Your task to perform on an android device: change keyboard looks Image 0: 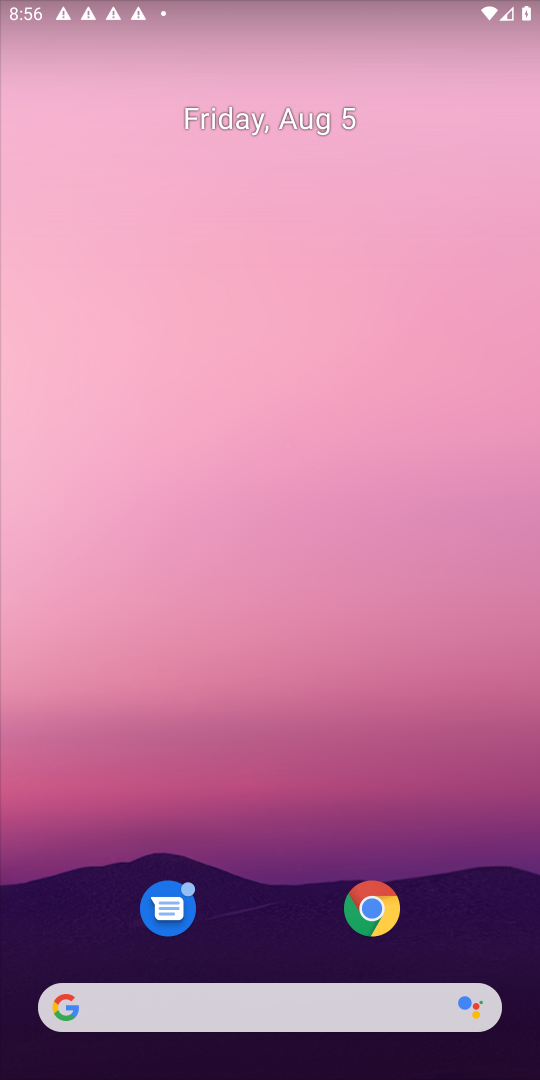
Step 0: drag from (250, 440) to (199, 200)
Your task to perform on an android device: change keyboard looks Image 1: 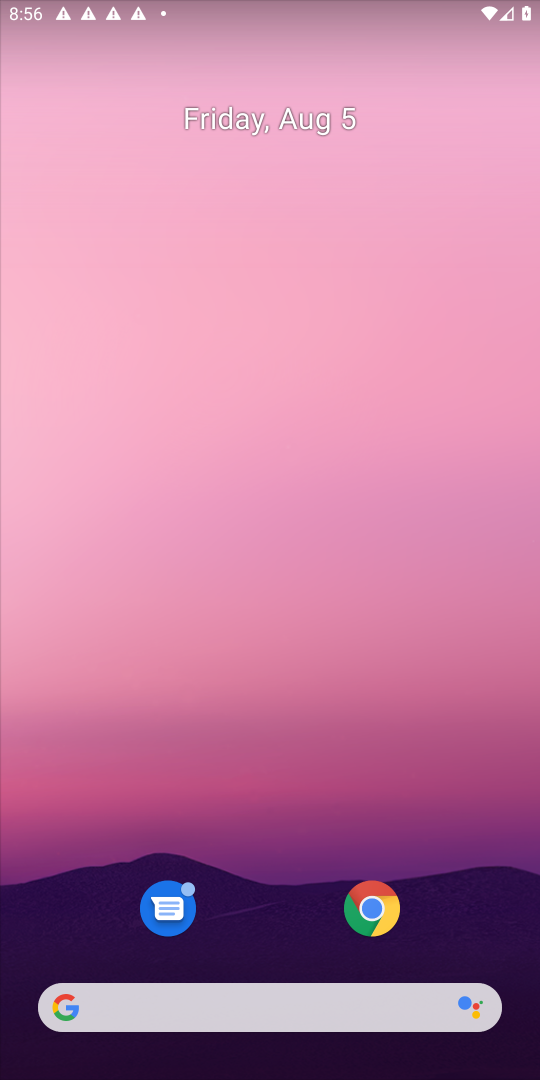
Step 1: drag from (264, 928) to (215, 124)
Your task to perform on an android device: change keyboard looks Image 2: 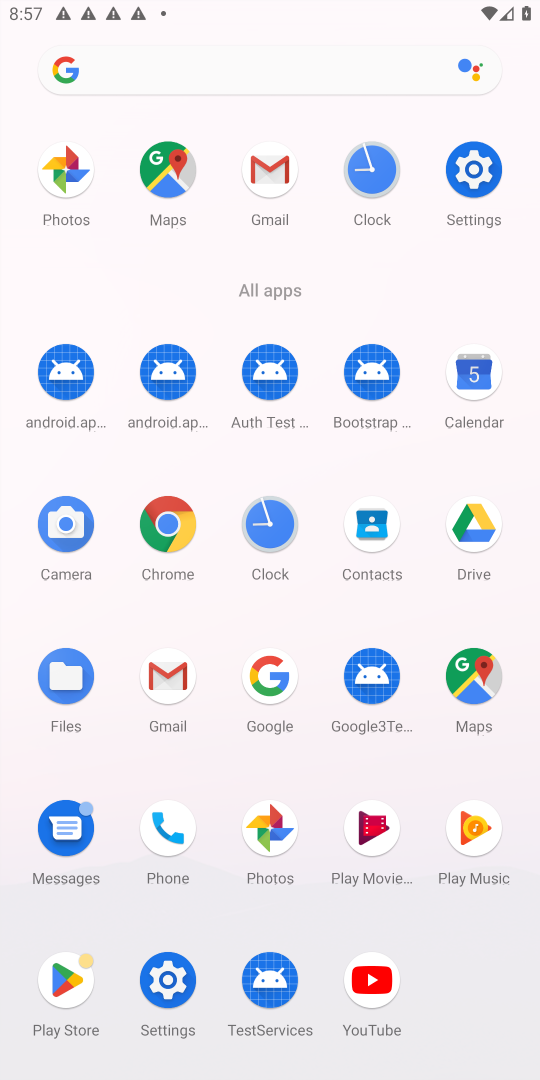
Step 2: click (492, 151)
Your task to perform on an android device: change keyboard looks Image 3: 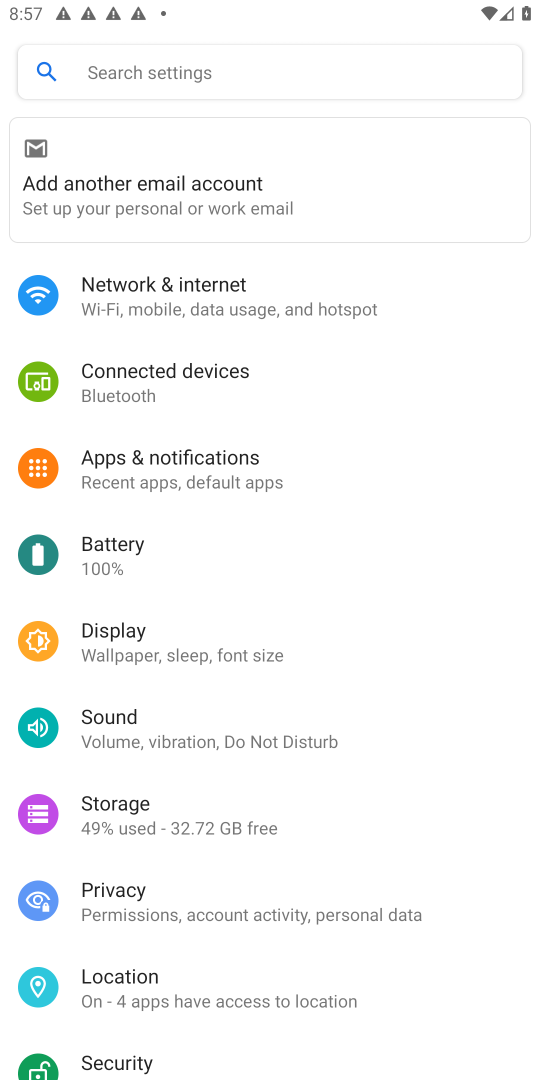
Step 3: drag from (329, 1053) to (180, 253)
Your task to perform on an android device: change keyboard looks Image 4: 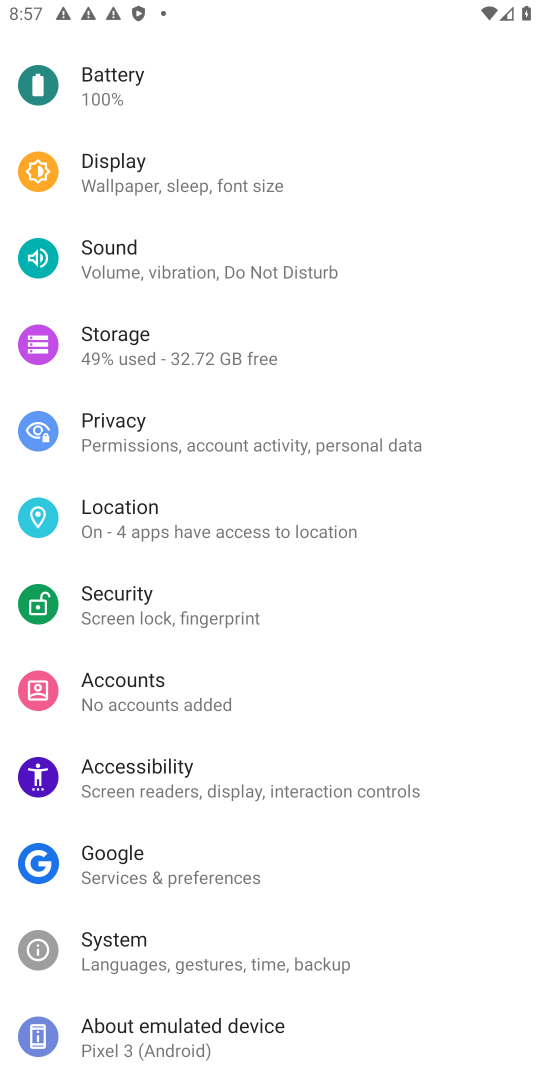
Step 4: click (239, 953)
Your task to perform on an android device: change keyboard looks Image 5: 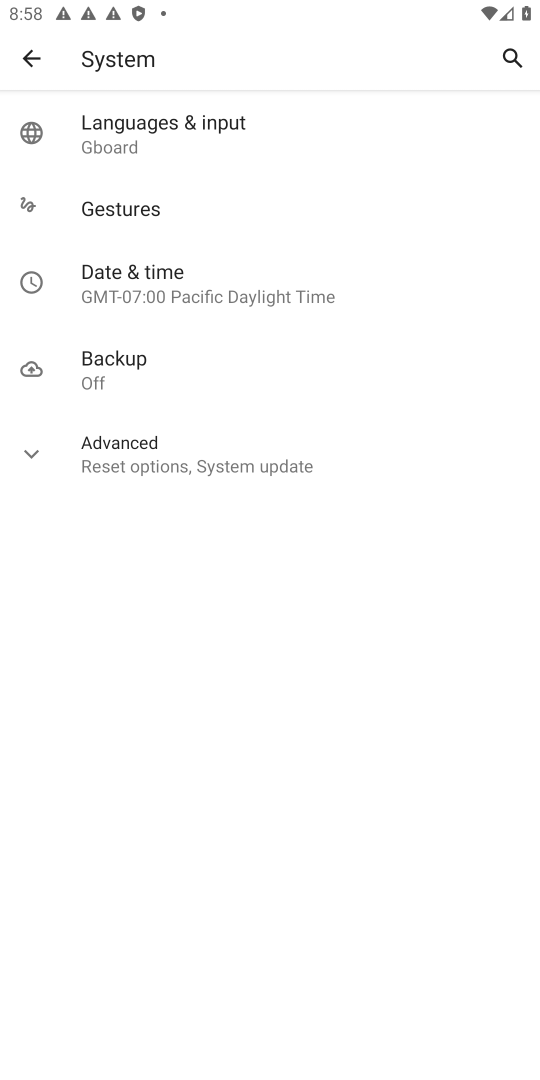
Step 5: click (169, 129)
Your task to perform on an android device: change keyboard looks Image 6: 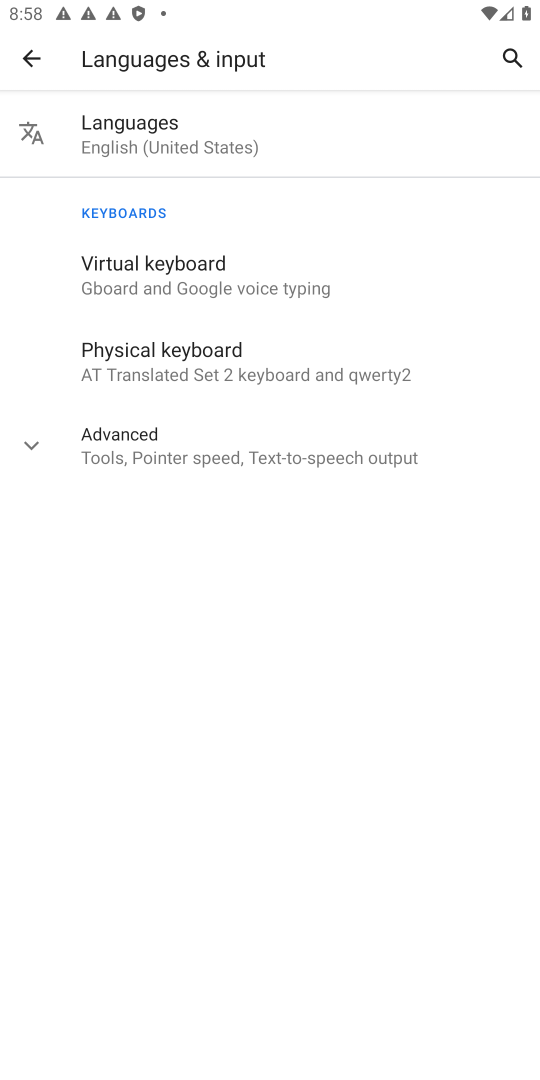
Step 6: click (193, 285)
Your task to perform on an android device: change keyboard looks Image 7: 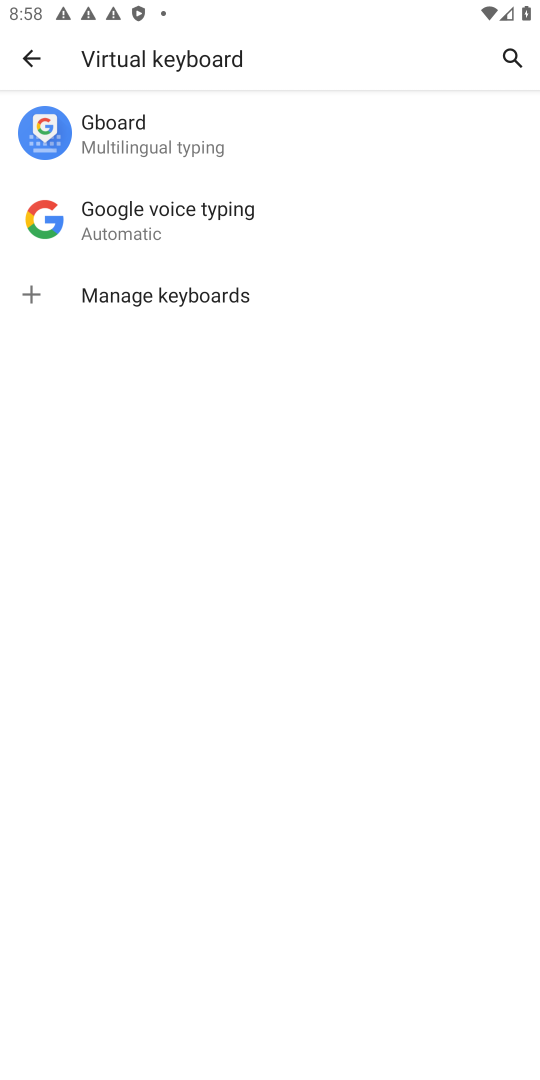
Step 7: click (158, 141)
Your task to perform on an android device: change keyboard looks Image 8: 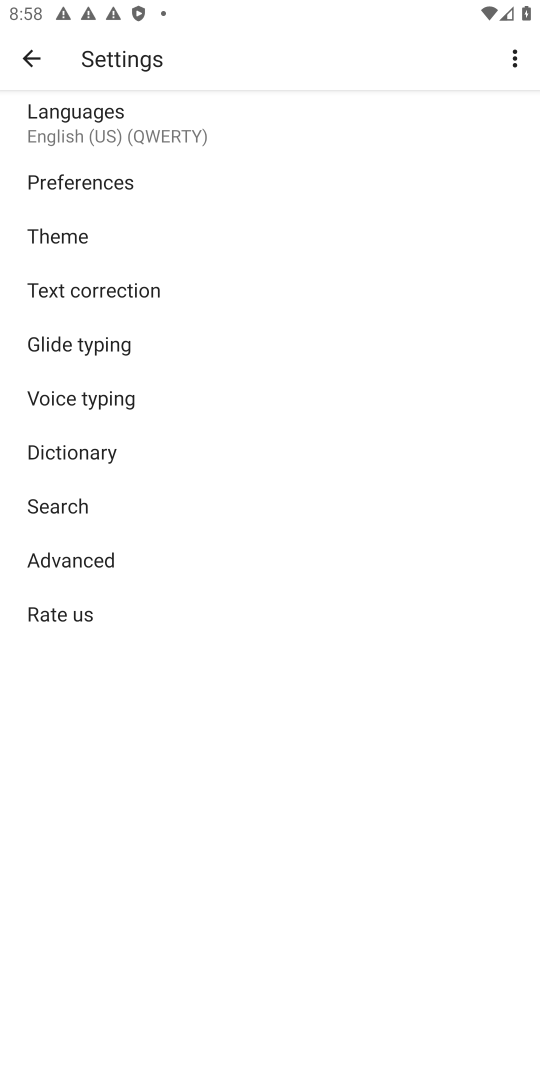
Step 8: click (138, 239)
Your task to perform on an android device: change keyboard looks Image 9: 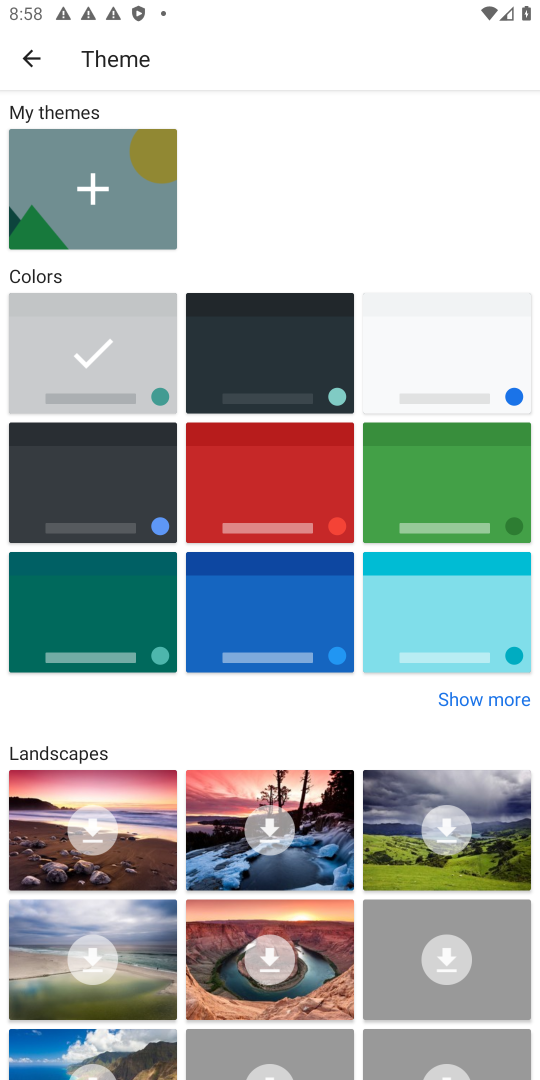
Step 9: click (266, 493)
Your task to perform on an android device: change keyboard looks Image 10: 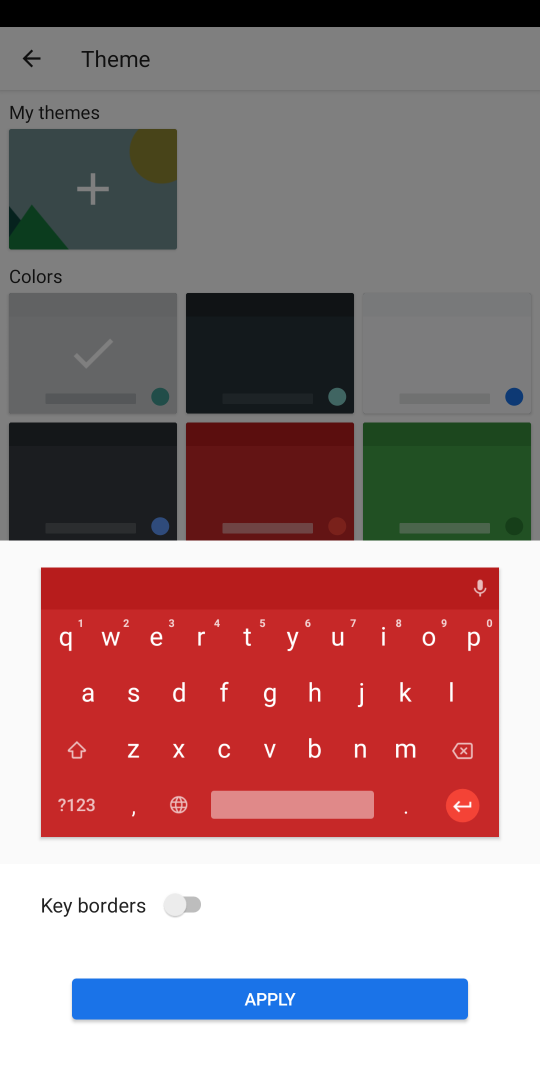
Step 10: click (361, 993)
Your task to perform on an android device: change keyboard looks Image 11: 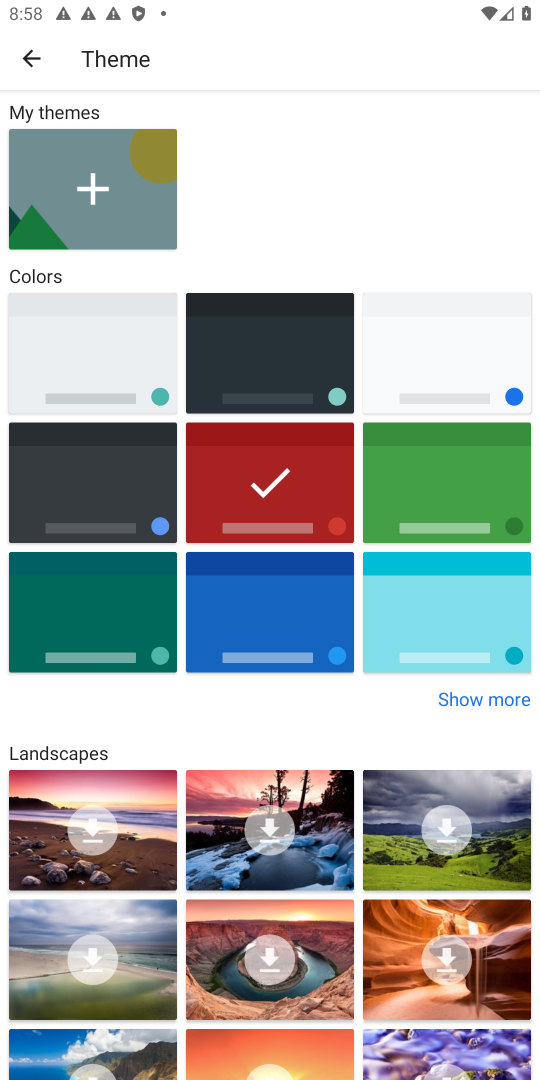
Step 11: task complete